Your task to perform on an android device: clear history in the chrome app Image 0: 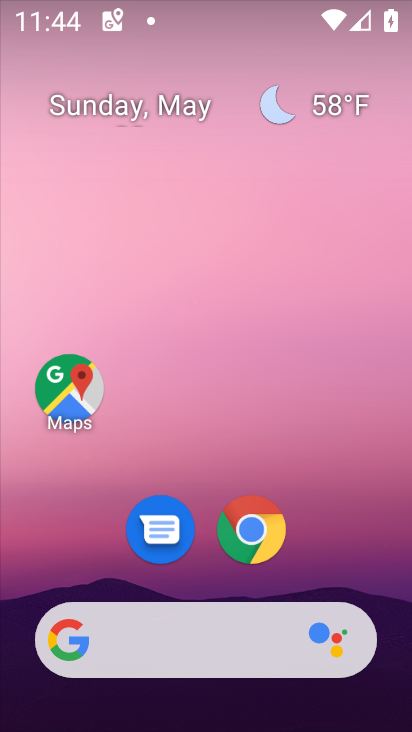
Step 0: click (258, 523)
Your task to perform on an android device: clear history in the chrome app Image 1: 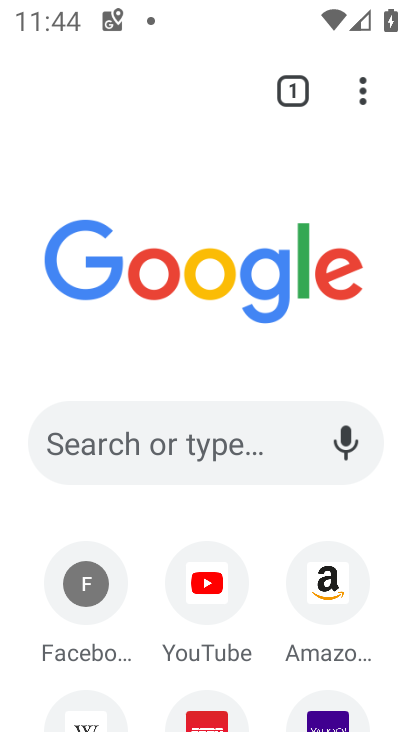
Step 1: task complete